Your task to perform on an android device: open app "Google Play Music" (install if not already installed) Image 0: 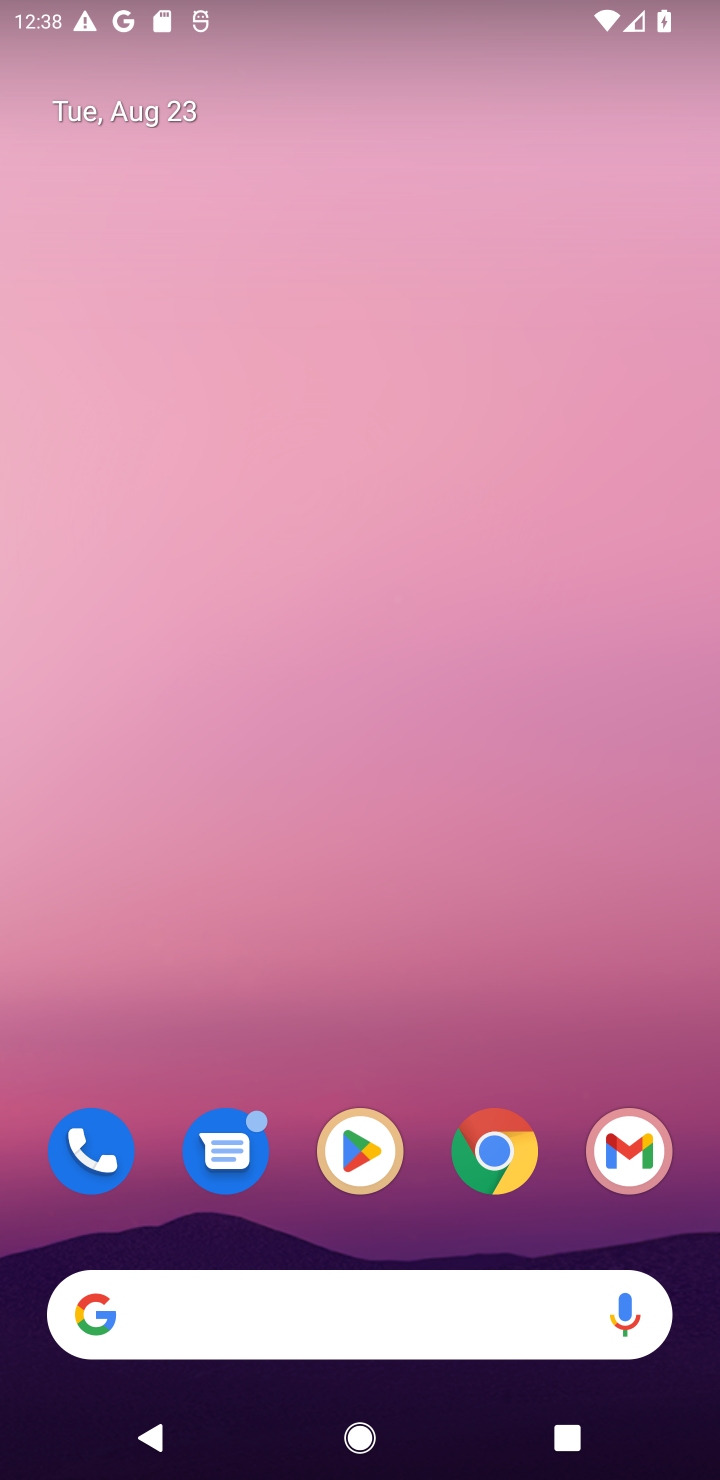
Step 0: click (331, 1156)
Your task to perform on an android device: open app "Google Play Music" (install if not already installed) Image 1: 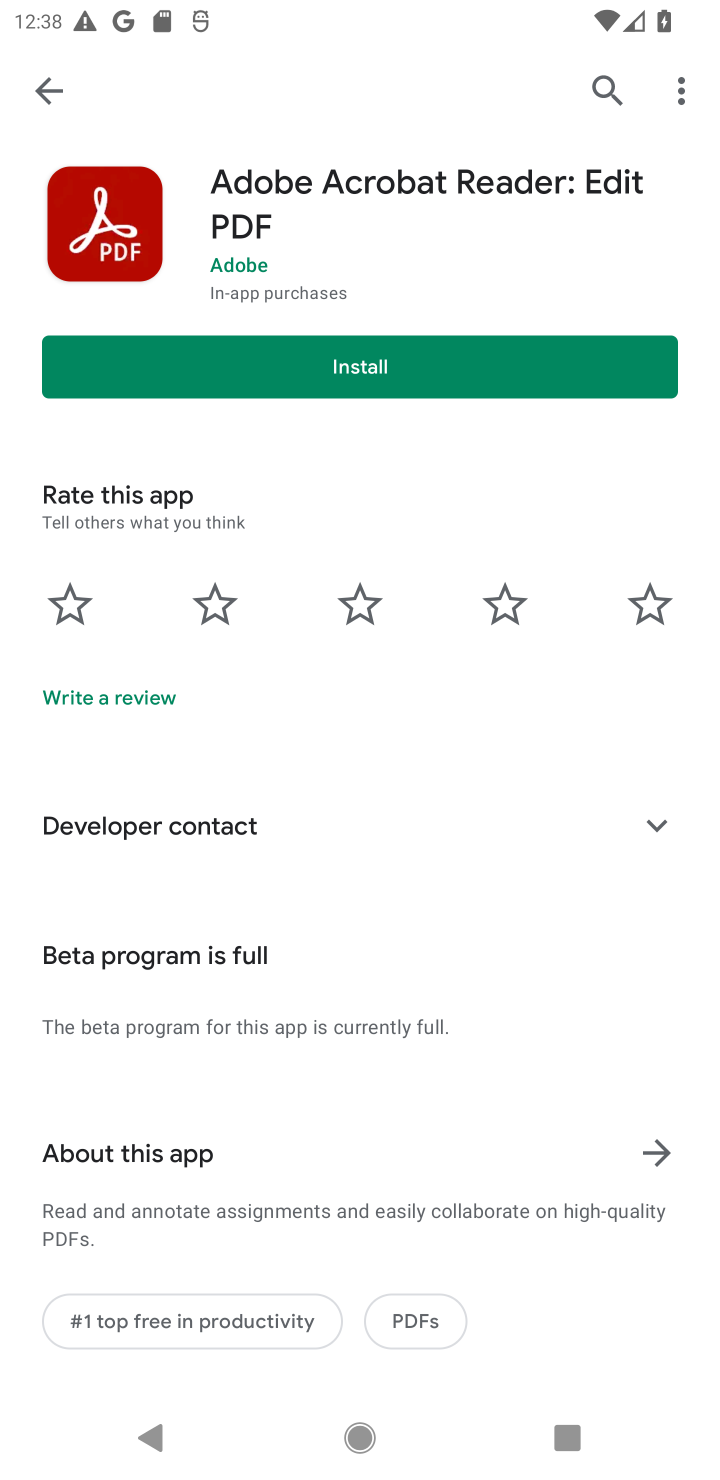
Step 1: click (596, 71)
Your task to perform on an android device: open app "Google Play Music" (install if not already installed) Image 2: 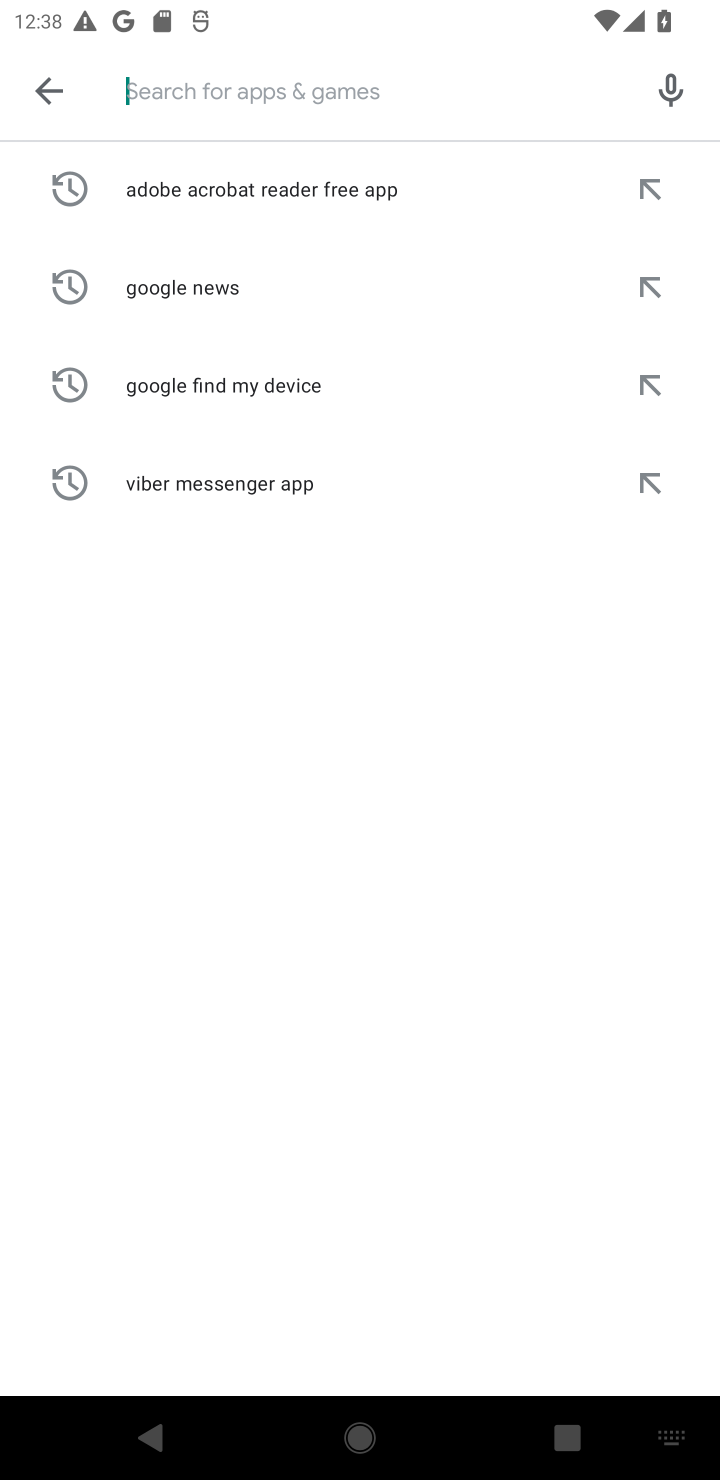
Step 2: type "Google Play Music"
Your task to perform on an android device: open app "Google Play Music" (install if not already installed) Image 3: 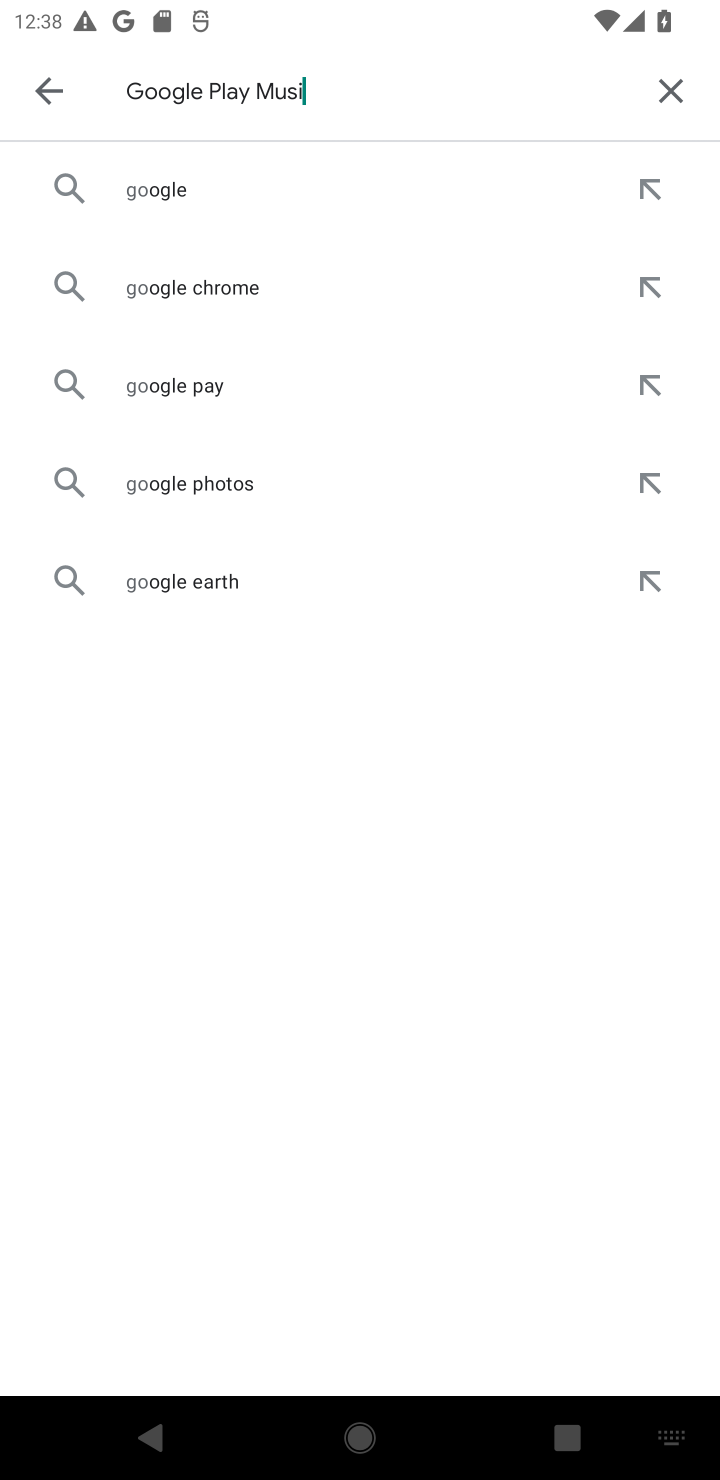
Step 3: type ""
Your task to perform on an android device: open app "Google Play Music" (install if not already installed) Image 4: 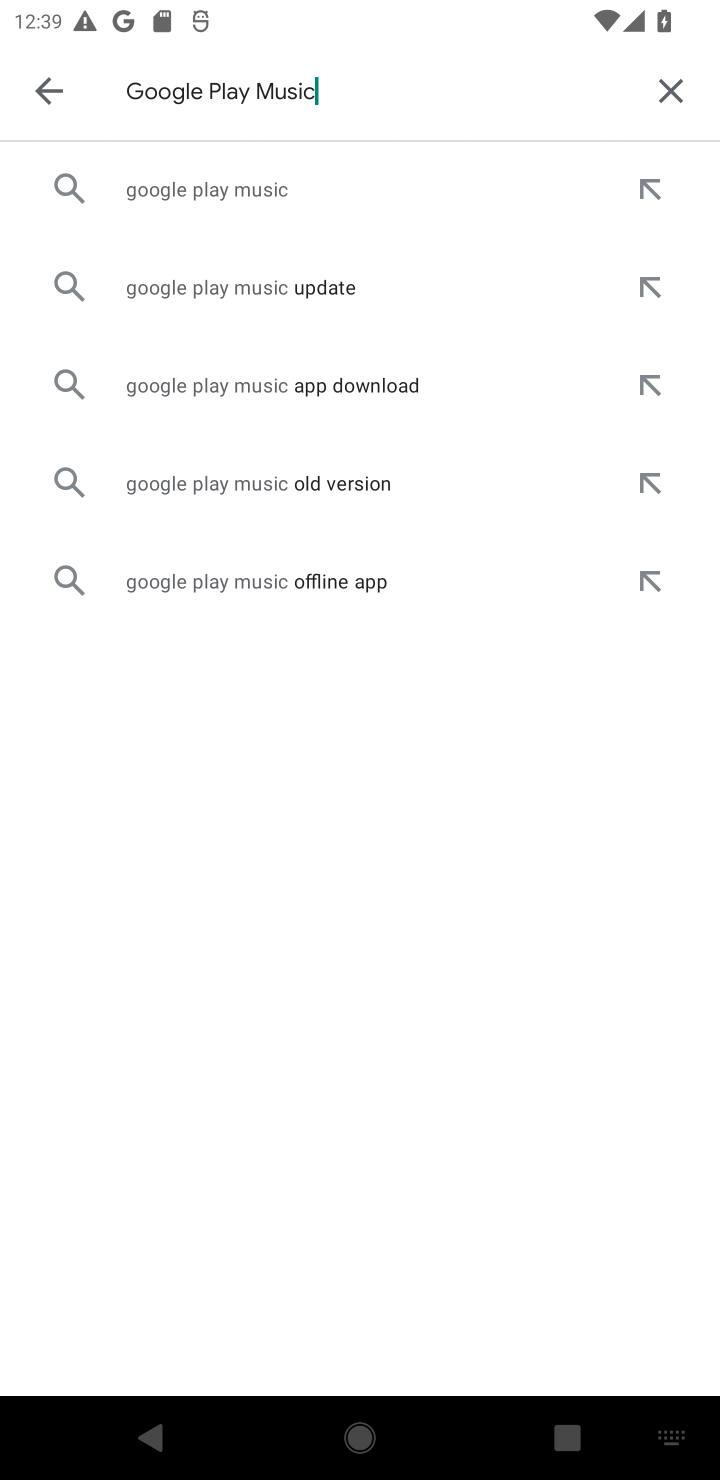
Step 4: click (262, 196)
Your task to perform on an android device: open app "Google Play Music" (install if not already installed) Image 5: 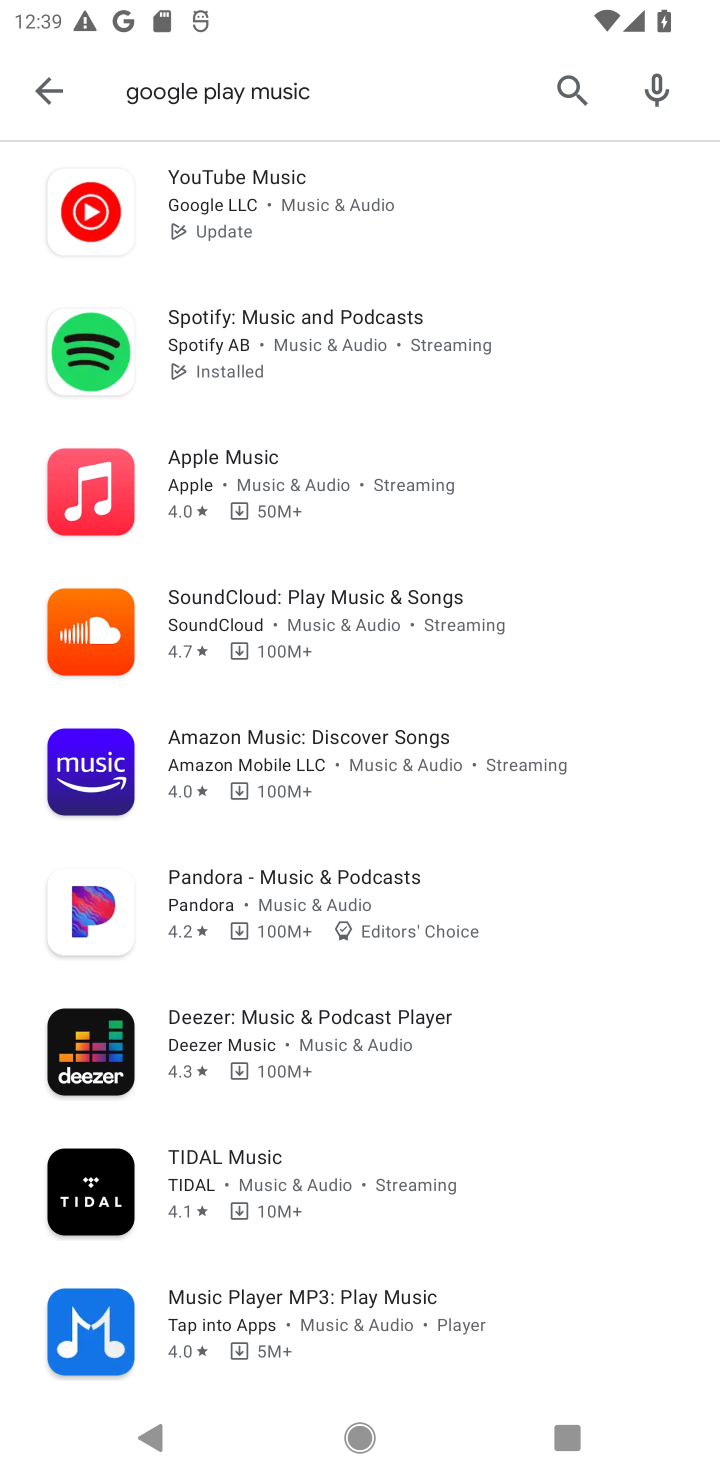
Step 5: task complete